Your task to perform on an android device: open app "Yahoo Mail" (install if not already installed) Image 0: 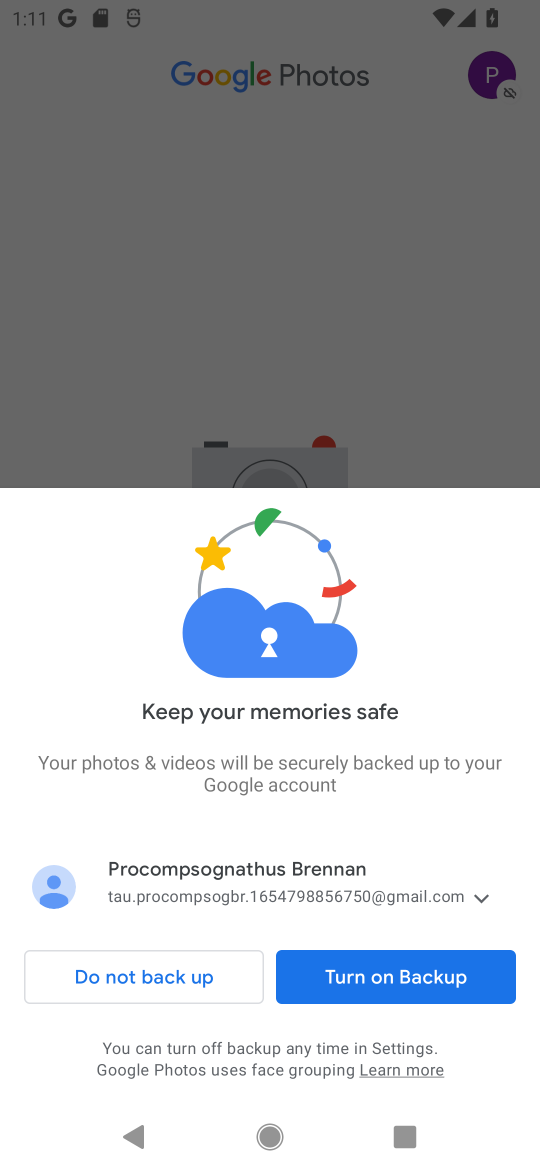
Step 0: press back button
Your task to perform on an android device: open app "Yahoo Mail" (install if not already installed) Image 1: 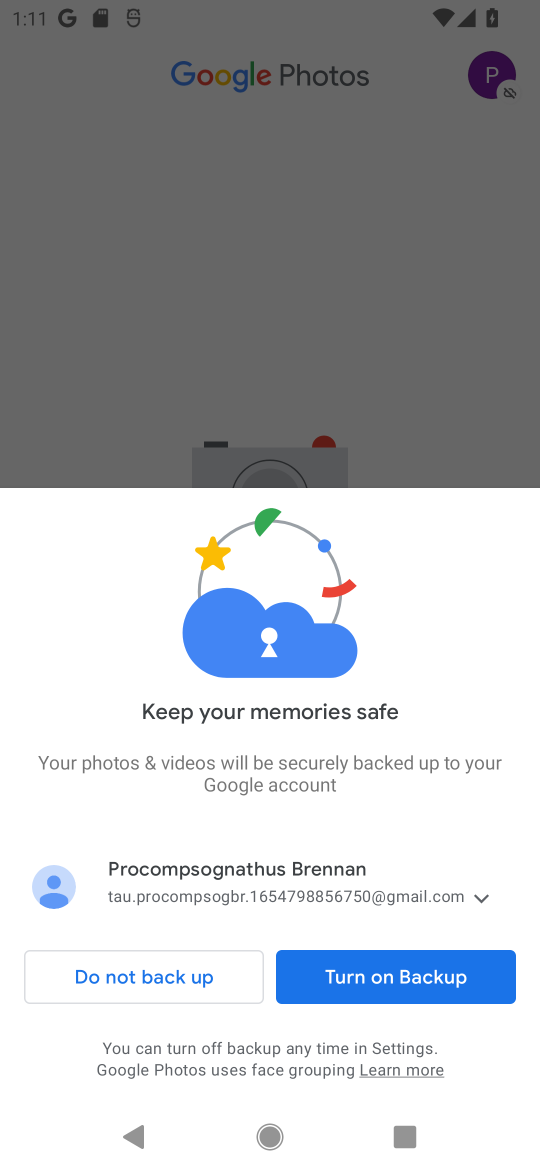
Step 1: press home button
Your task to perform on an android device: open app "Yahoo Mail" (install if not already installed) Image 2: 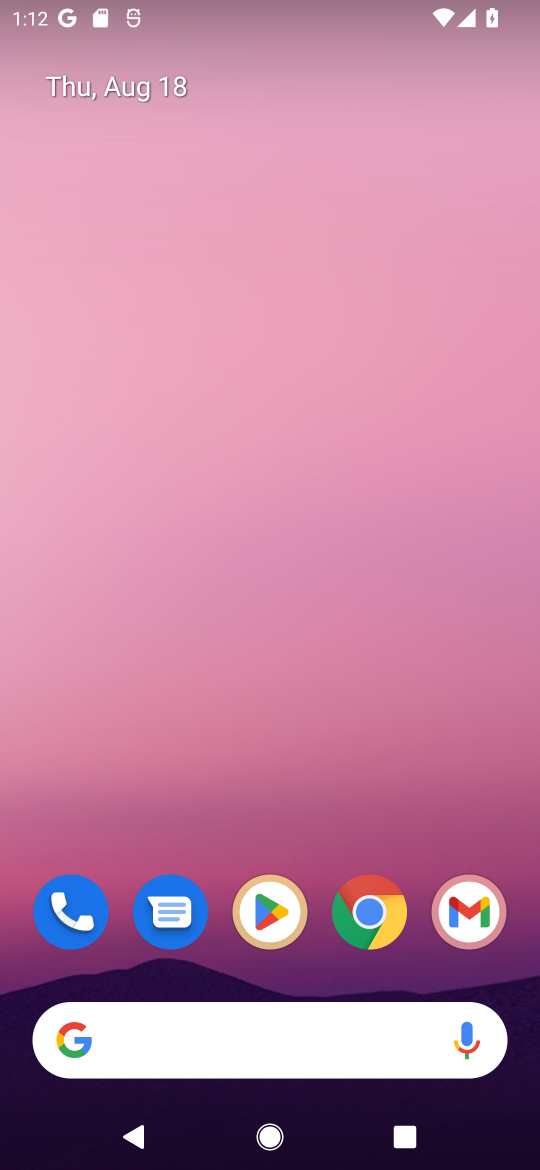
Step 2: click (277, 933)
Your task to perform on an android device: open app "Yahoo Mail" (install if not already installed) Image 3: 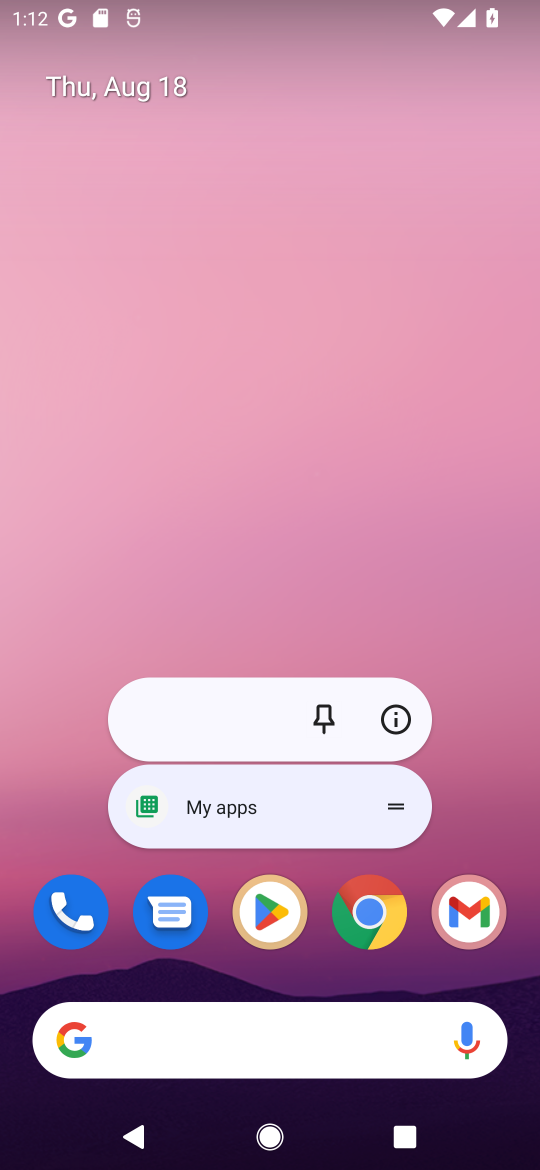
Step 3: click (263, 915)
Your task to perform on an android device: open app "Yahoo Mail" (install if not already installed) Image 4: 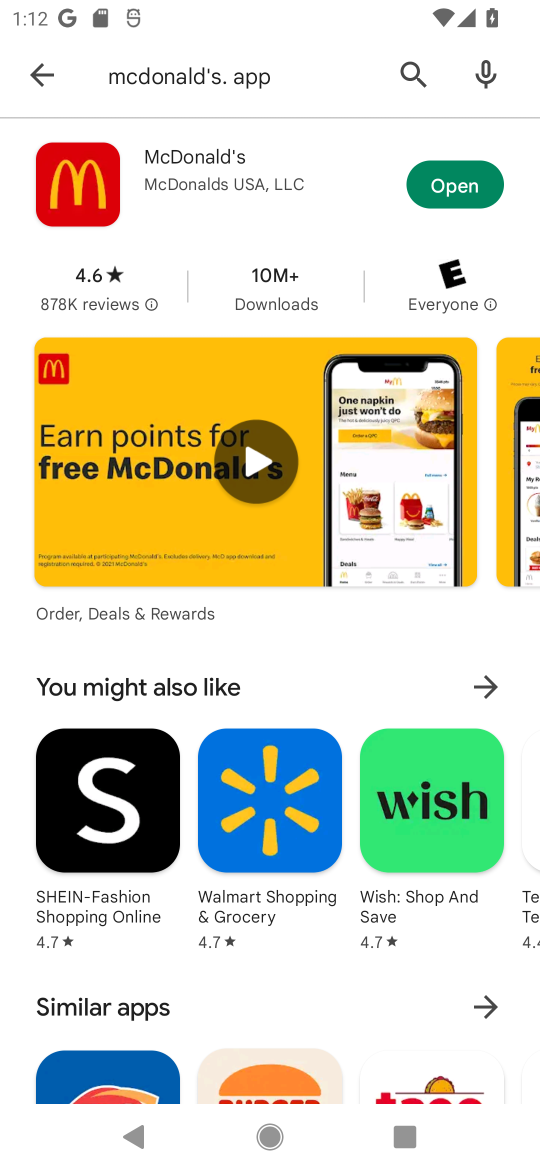
Step 4: click (387, 79)
Your task to perform on an android device: open app "Yahoo Mail" (install if not already installed) Image 5: 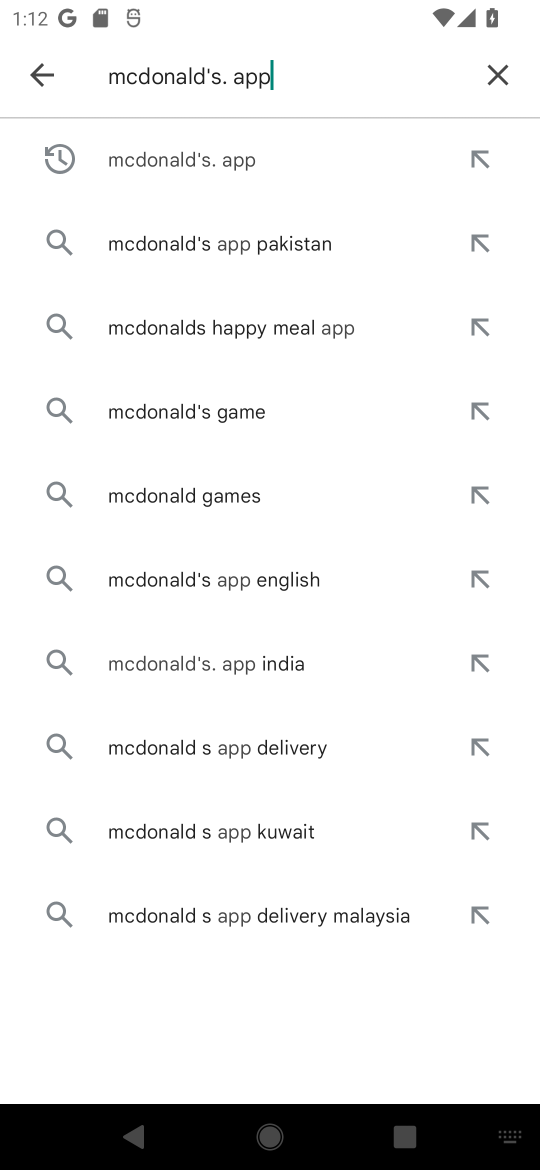
Step 5: click (486, 58)
Your task to perform on an android device: open app "Yahoo Mail" (install if not already installed) Image 6: 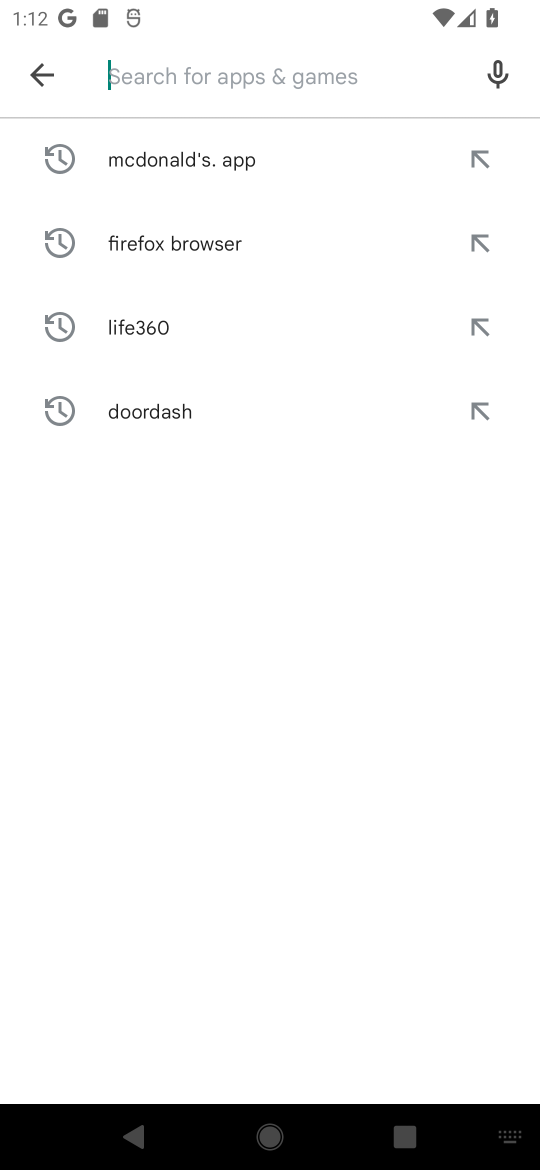
Step 6: click (163, 79)
Your task to perform on an android device: open app "Yahoo Mail" (install if not already installed) Image 7: 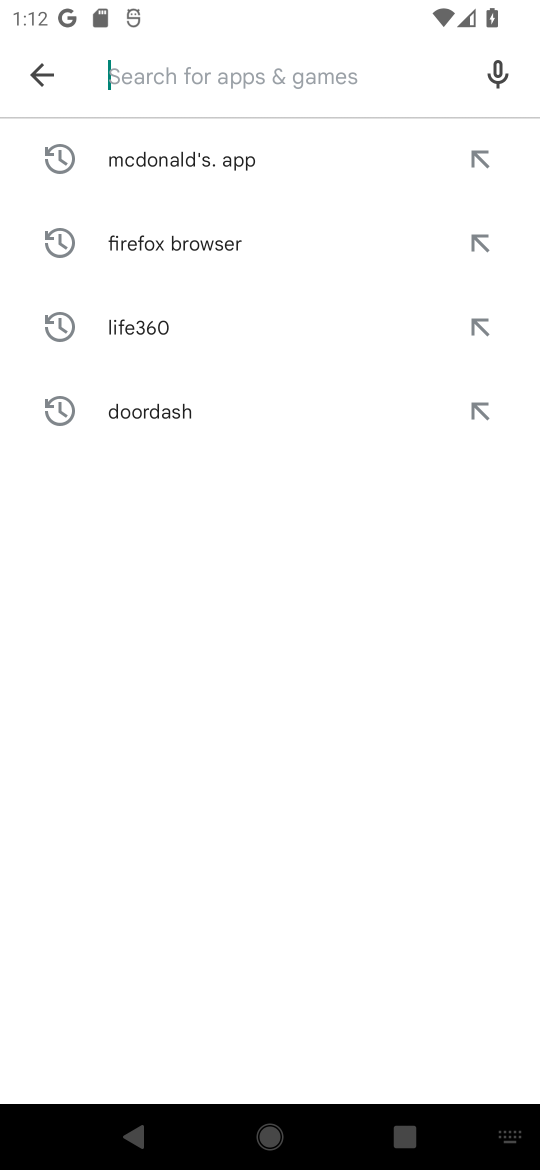
Step 7: type "Yahoo Mail"
Your task to perform on an android device: open app "Yahoo Mail" (install if not already installed) Image 8: 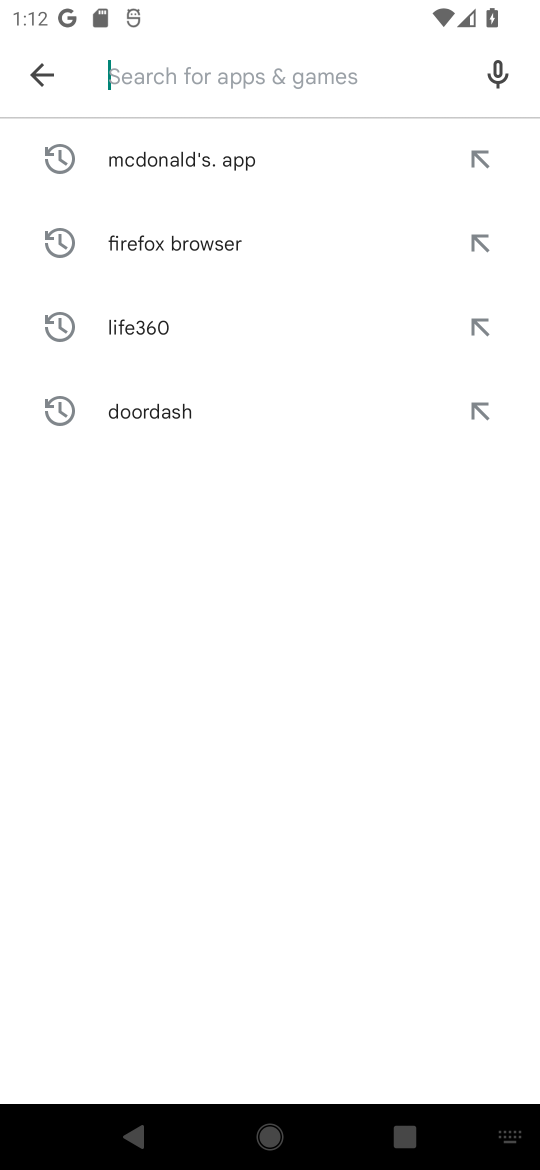
Step 8: click (376, 732)
Your task to perform on an android device: open app "Yahoo Mail" (install if not already installed) Image 9: 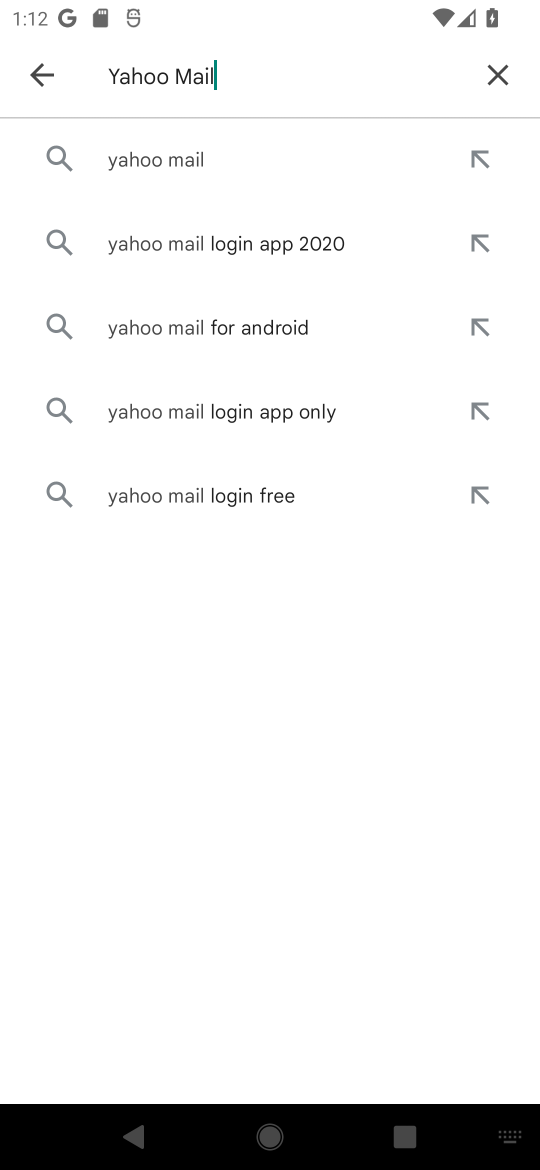
Step 9: click (168, 162)
Your task to perform on an android device: open app "Yahoo Mail" (install if not already installed) Image 10: 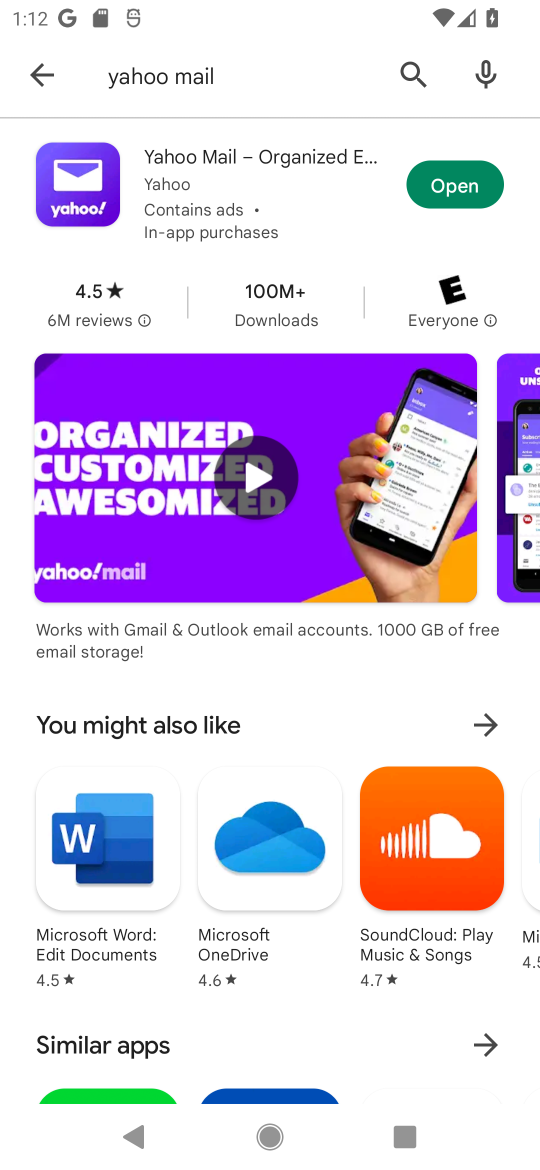
Step 10: click (462, 185)
Your task to perform on an android device: open app "Yahoo Mail" (install if not already installed) Image 11: 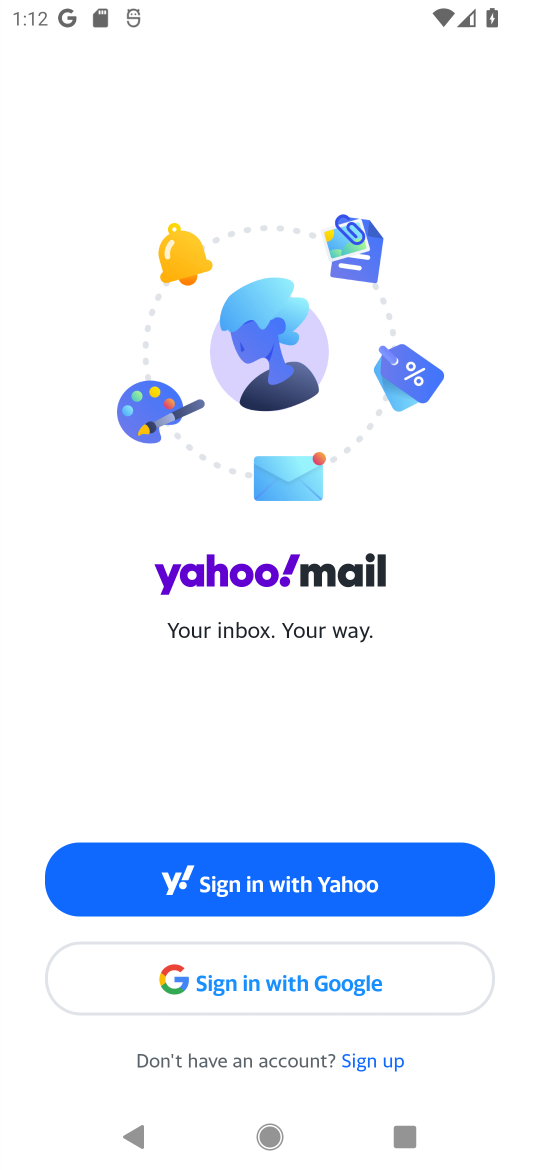
Step 11: task complete